Your task to perform on an android device: set the timer Image 0: 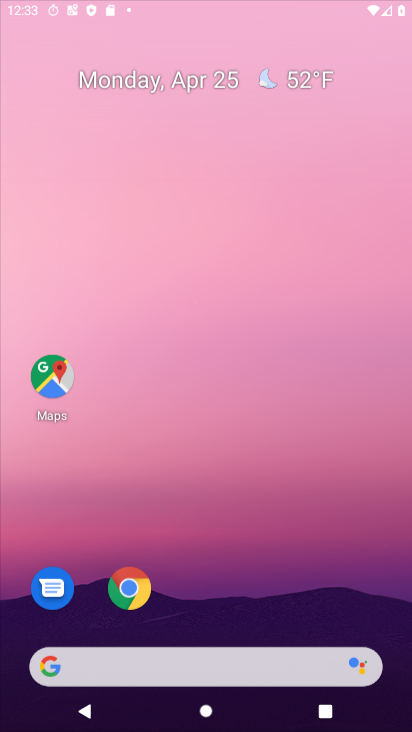
Step 0: drag from (152, 644) to (268, 78)
Your task to perform on an android device: set the timer Image 1: 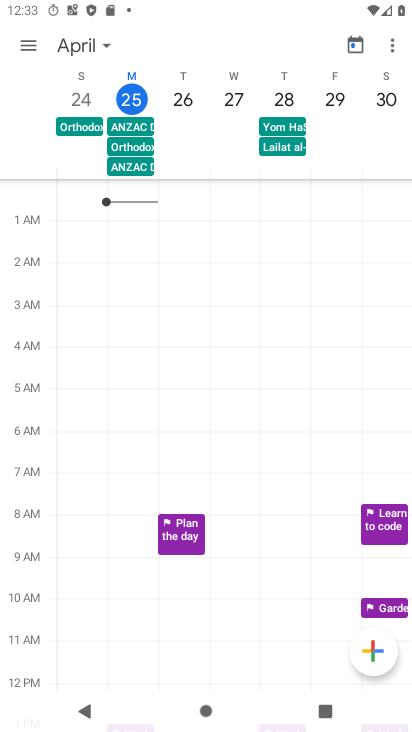
Step 1: press home button
Your task to perform on an android device: set the timer Image 2: 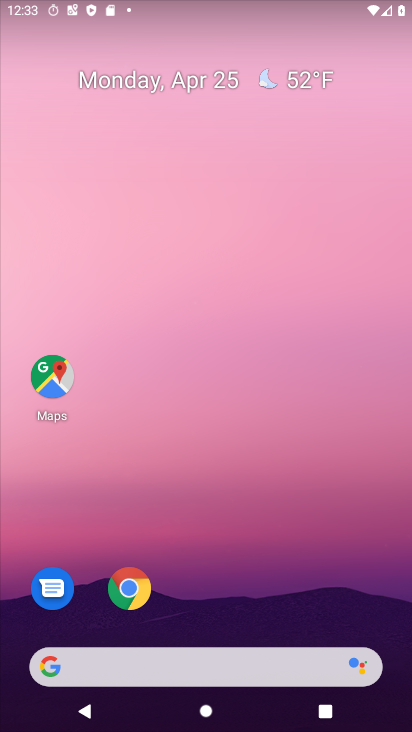
Step 2: drag from (190, 645) to (315, 42)
Your task to perform on an android device: set the timer Image 3: 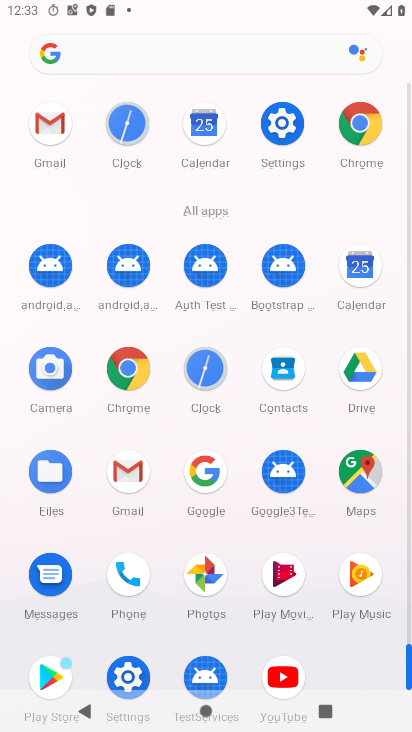
Step 3: click (213, 367)
Your task to perform on an android device: set the timer Image 4: 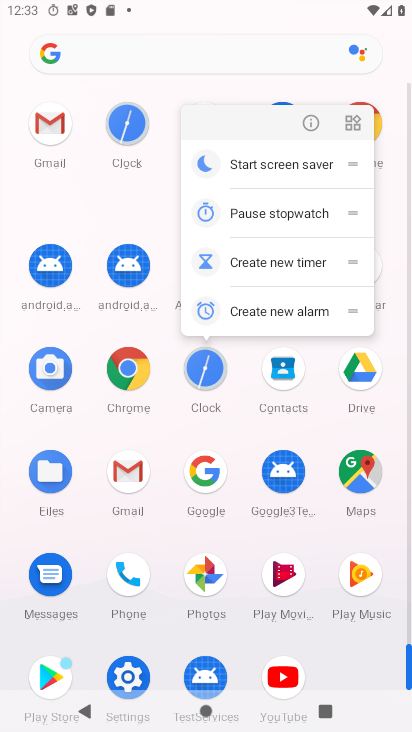
Step 4: click (207, 369)
Your task to perform on an android device: set the timer Image 5: 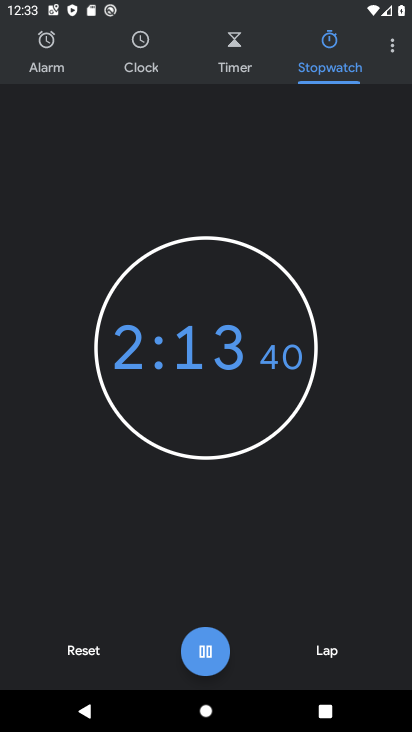
Step 5: click (223, 64)
Your task to perform on an android device: set the timer Image 6: 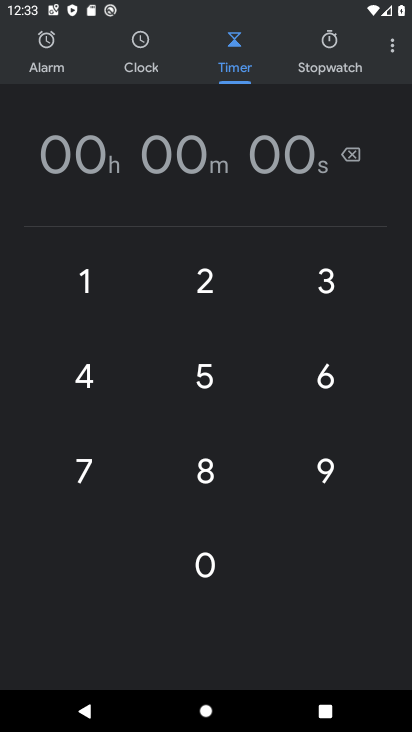
Step 6: click (208, 277)
Your task to perform on an android device: set the timer Image 7: 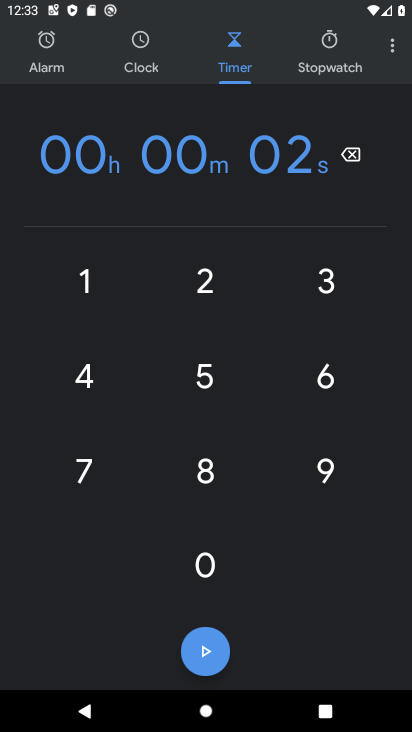
Step 7: click (200, 654)
Your task to perform on an android device: set the timer Image 8: 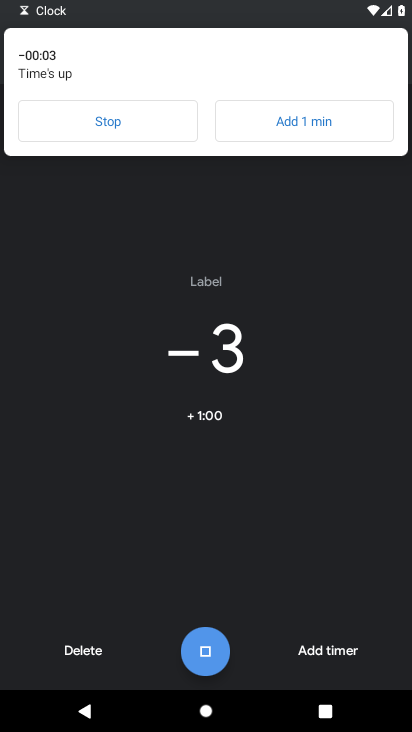
Step 8: task complete